Your task to perform on an android device: Toggle the flashlight Image 0: 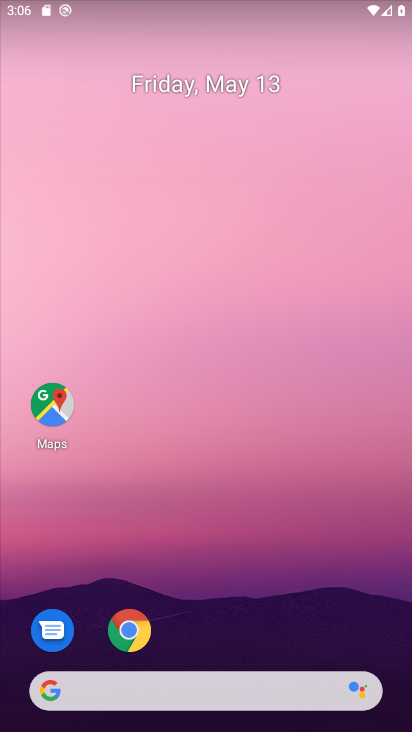
Step 0: drag from (232, 652) to (167, 41)
Your task to perform on an android device: Toggle the flashlight Image 1: 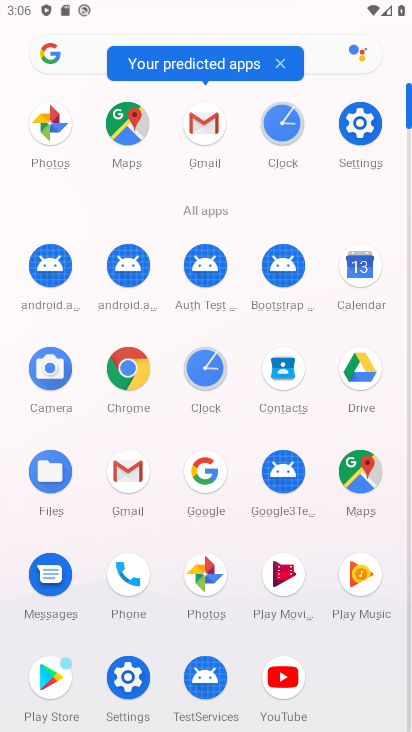
Step 1: click (350, 129)
Your task to perform on an android device: Toggle the flashlight Image 2: 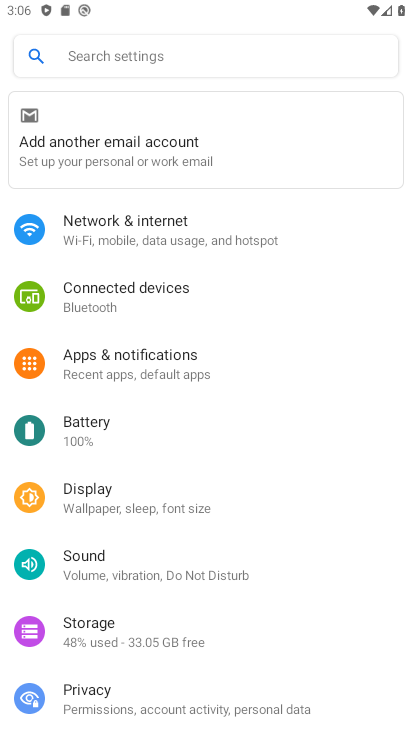
Step 2: click (249, 69)
Your task to perform on an android device: Toggle the flashlight Image 3: 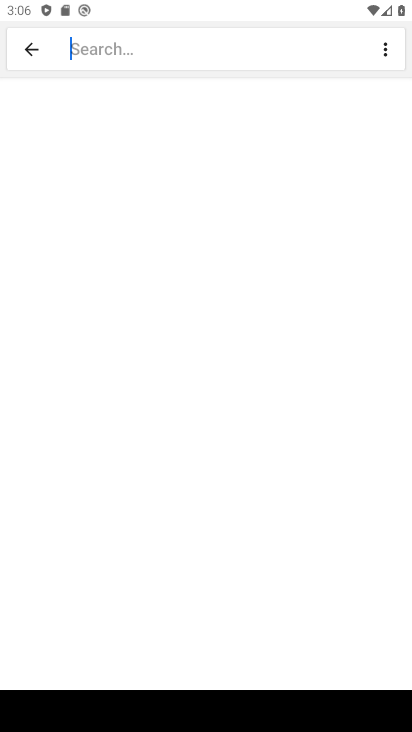
Step 3: type "flashlight"
Your task to perform on an android device: Toggle the flashlight Image 4: 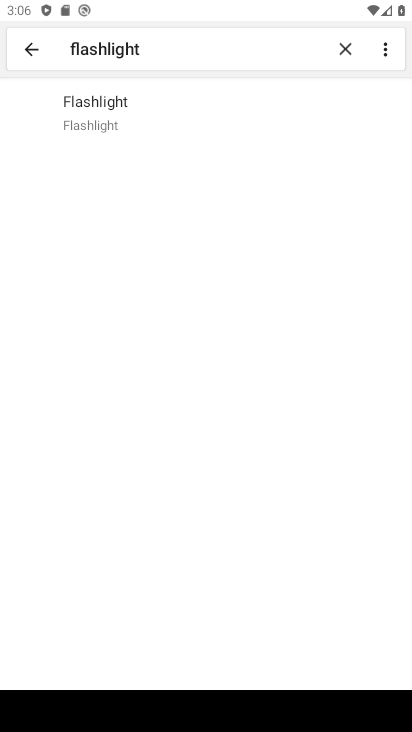
Step 4: click (168, 117)
Your task to perform on an android device: Toggle the flashlight Image 5: 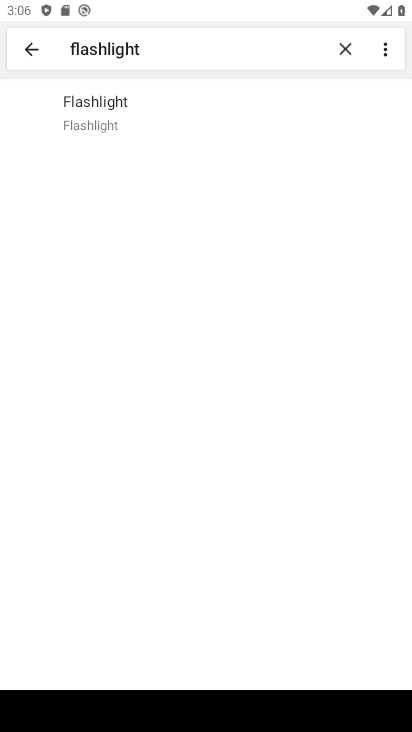
Step 5: task complete